Your task to perform on an android device: open app "eBay: The shopping marketplace" Image 0: 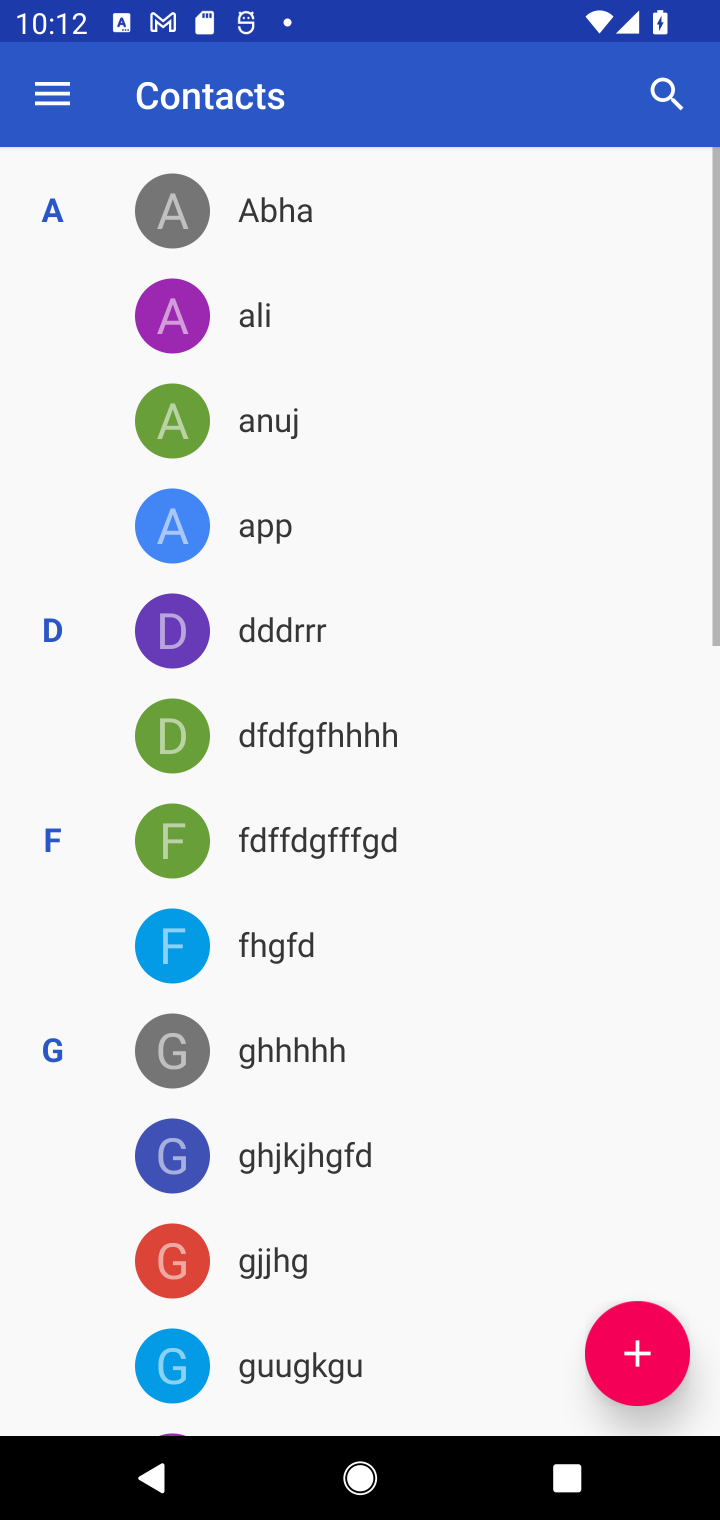
Step 0: press home button
Your task to perform on an android device: open app "eBay: The shopping marketplace" Image 1: 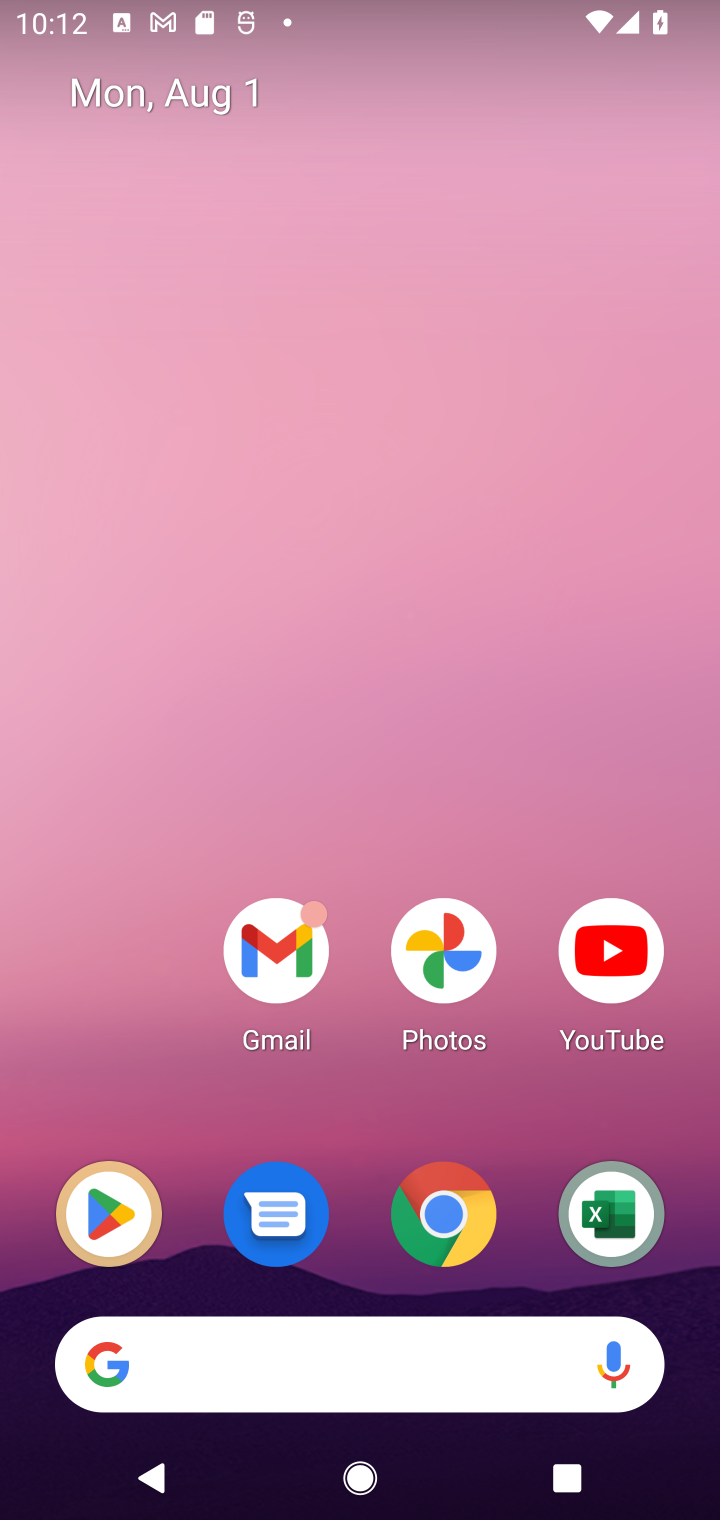
Step 1: click (117, 1222)
Your task to perform on an android device: open app "eBay: The shopping marketplace" Image 2: 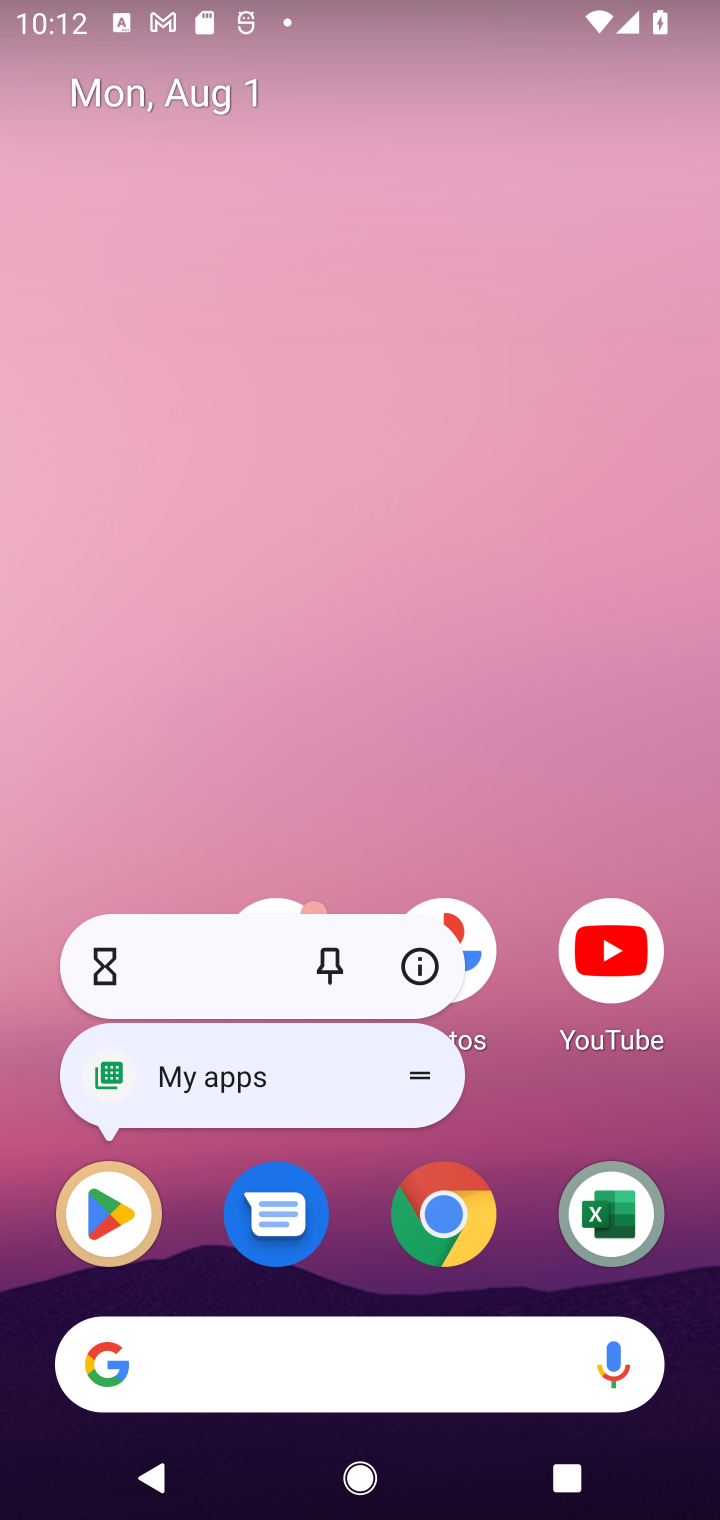
Step 2: click (102, 1213)
Your task to perform on an android device: open app "eBay: The shopping marketplace" Image 3: 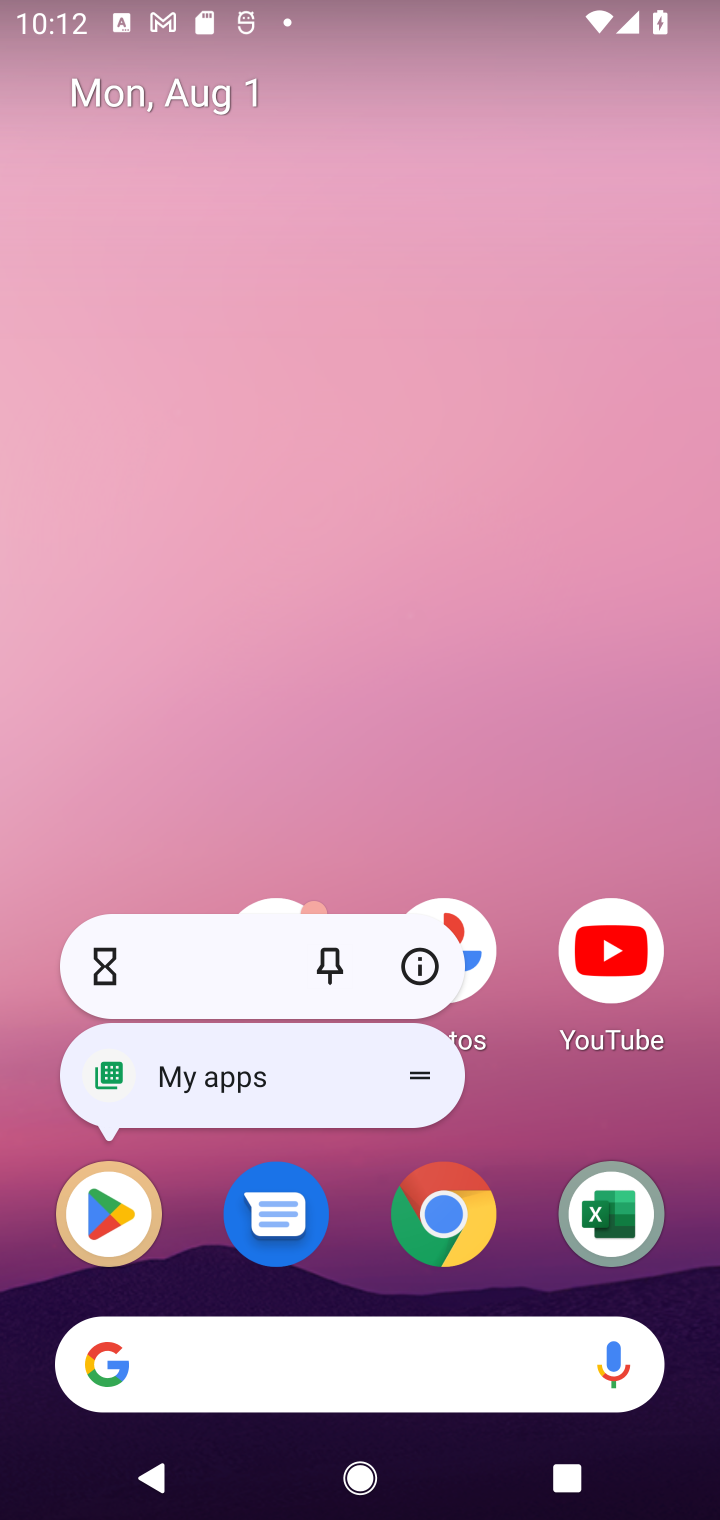
Step 3: click (102, 1220)
Your task to perform on an android device: open app "eBay: The shopping marketplace" Image 4: 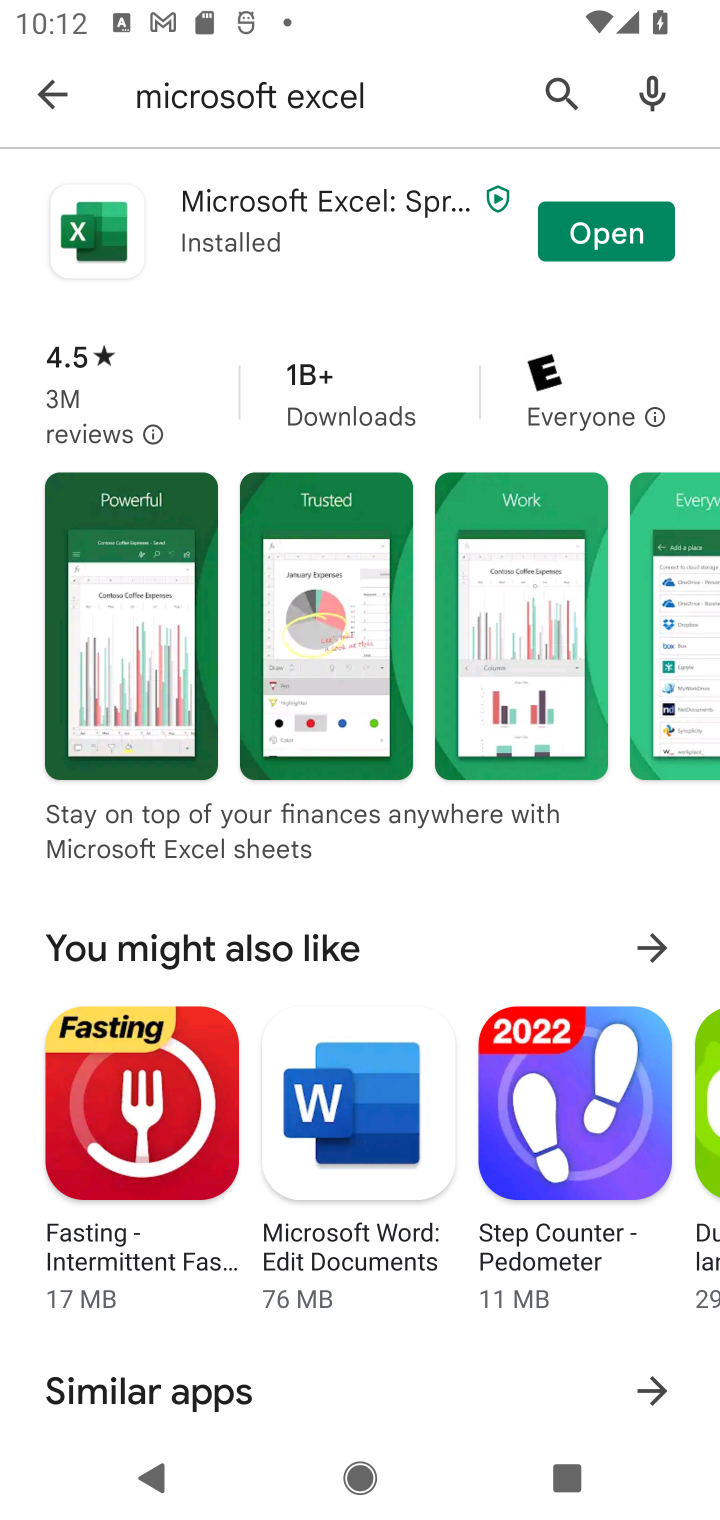
Step 4: click (565, 91)
Your task to perform on an android device: open app "eBay: The shopping marketplace" Image 5: 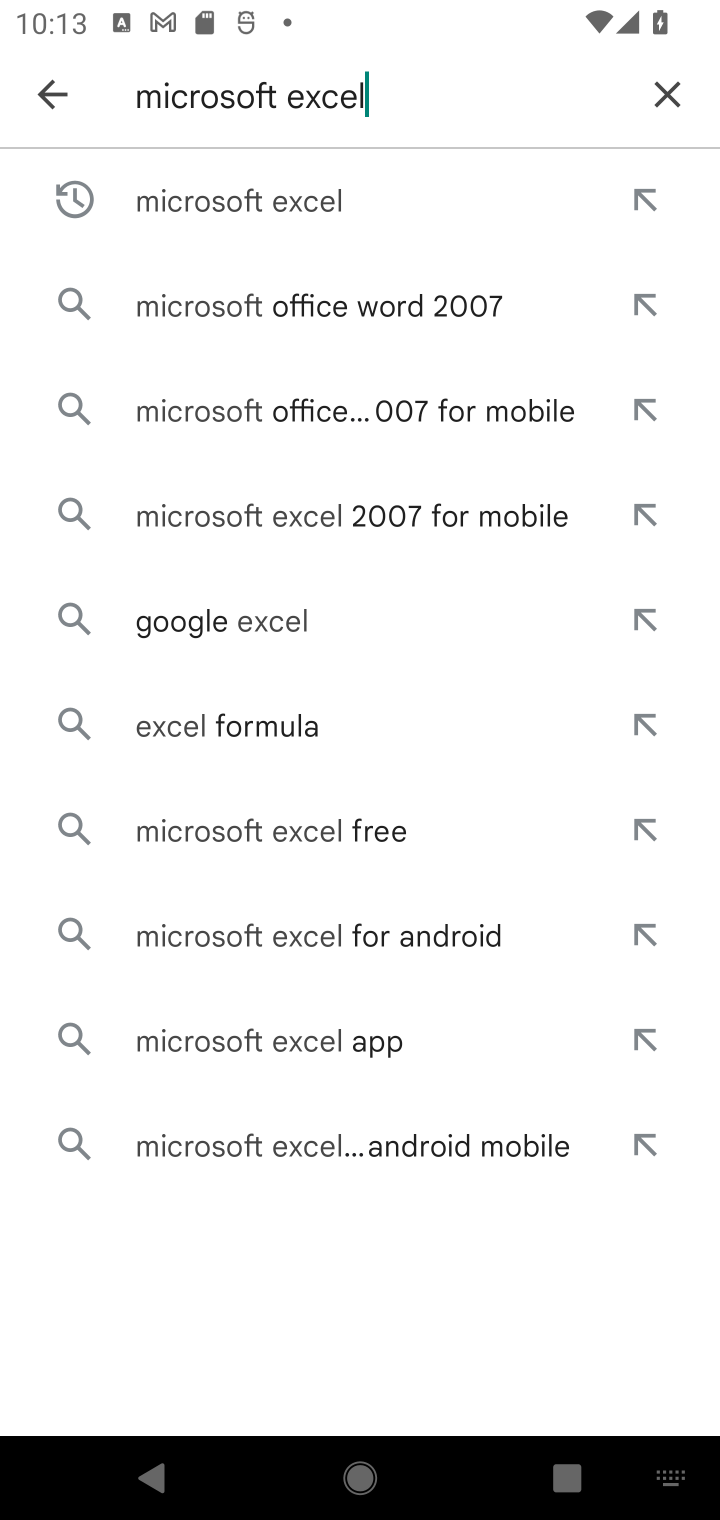
Step 5: click (663, 96)
Your task to perform on an android device: open app "eBay: The shopping marketplace" Image 6: 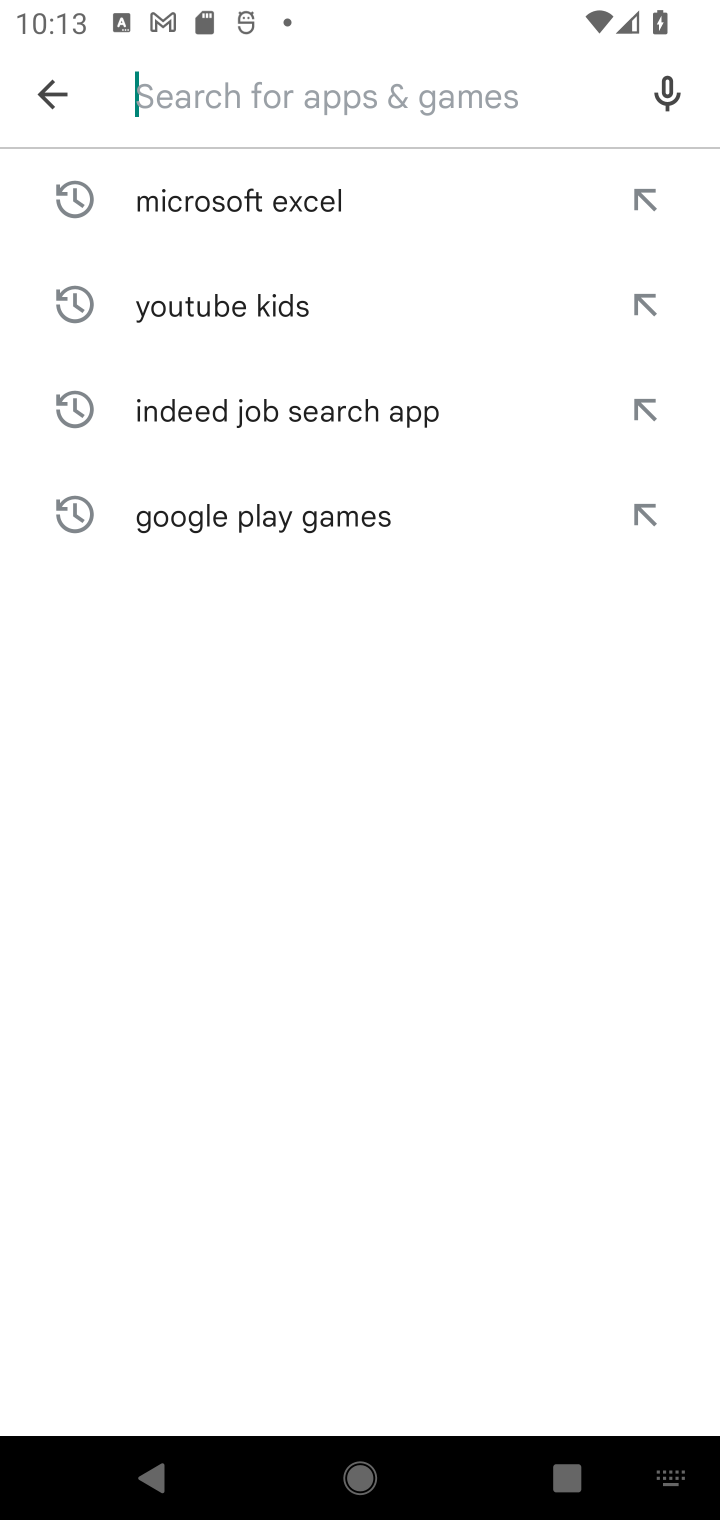
Step 6: type "eBay: The shopping marketplace"
Your task to perform on an android device: open app "eBay: The shopping marketplace" Image 7: 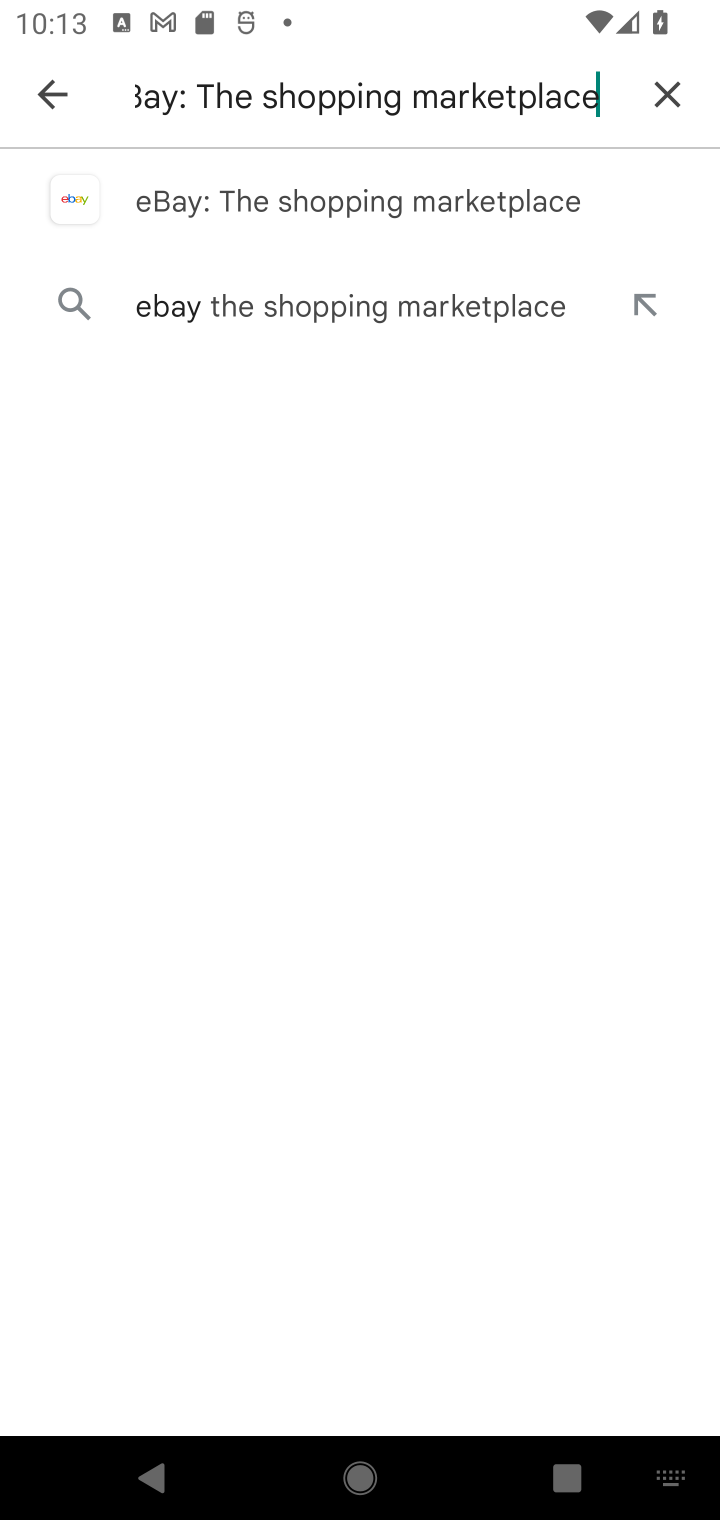
Step 7: click (333, 200)
Your task to perform on an android device: open app "eBay: The shopping marketplace" Image 8: 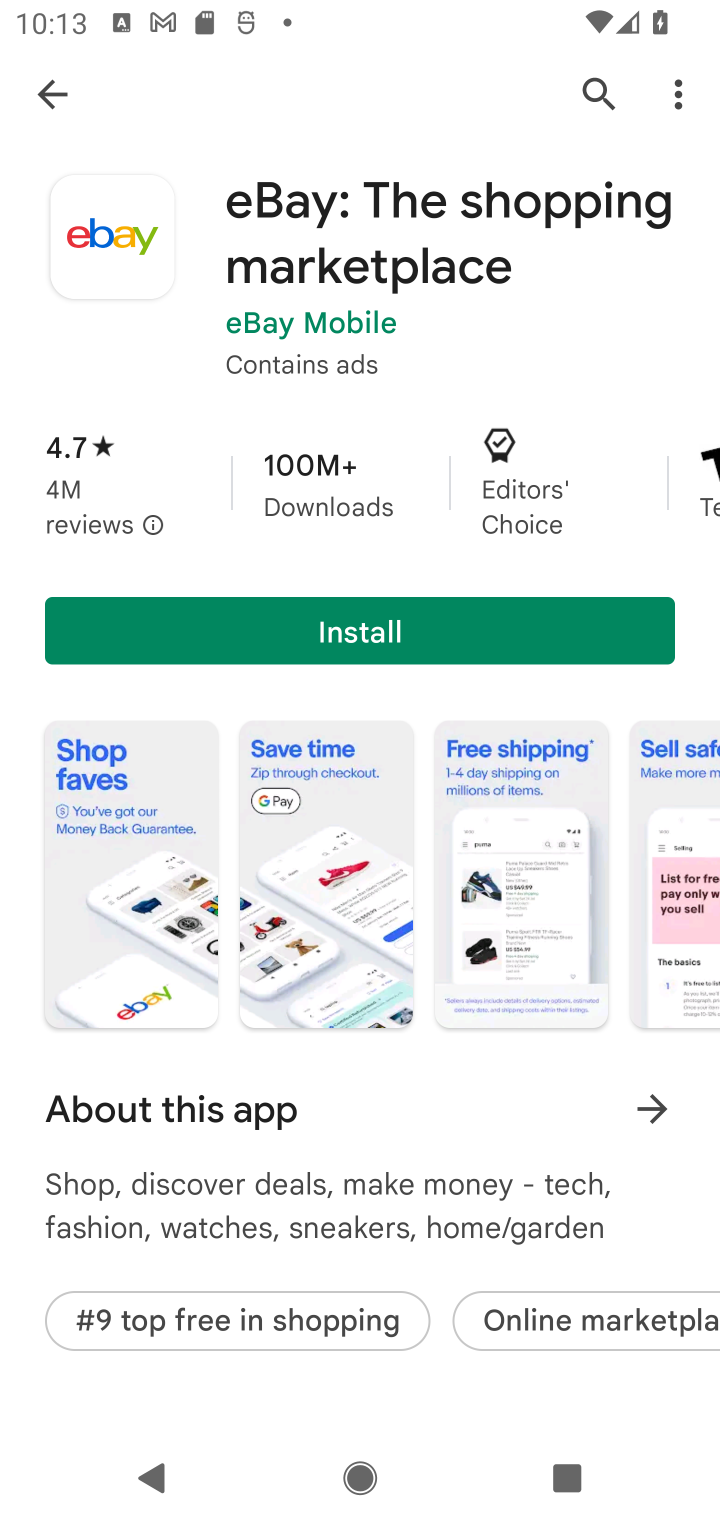
Step 8: task complete